Your task to perform on an android device: Go to CNN.com Image 0: 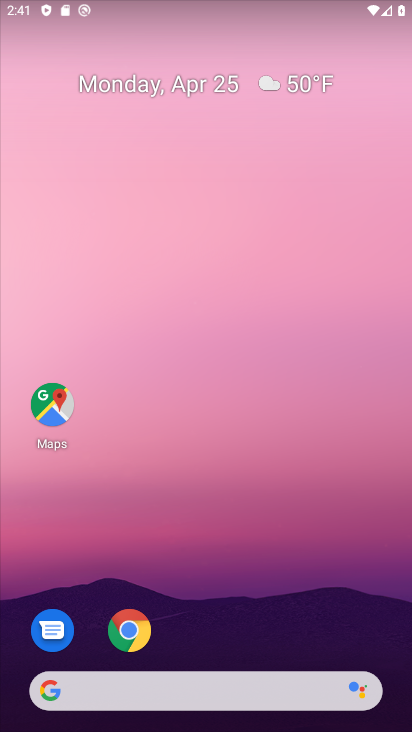
Step 0: click (140, 639)
Your task to perform on an android device: Go to CNN.com Image 1: 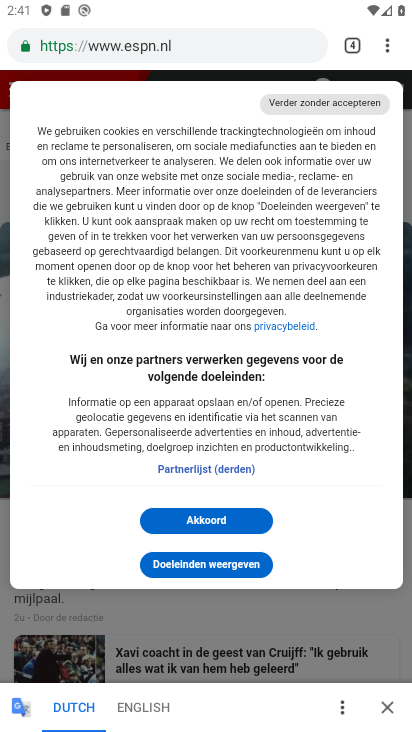
Step 1: click (353, 44)
Your task to perform on an android device: Go to CNN.com Image 2: 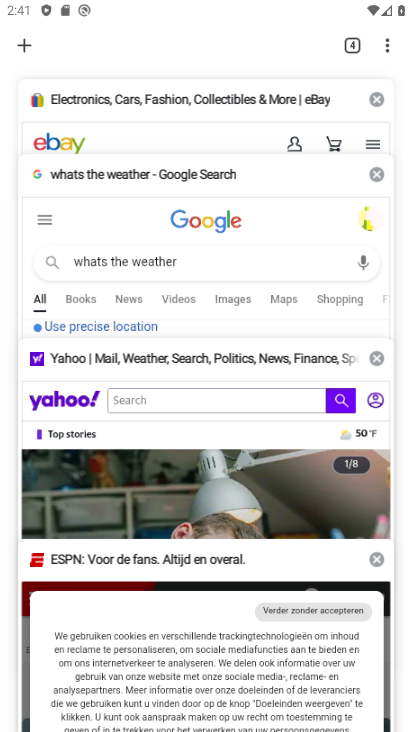
Step 2: click (21, 45)
Your task to perform on an android device: Go to CNN.com Image 3: 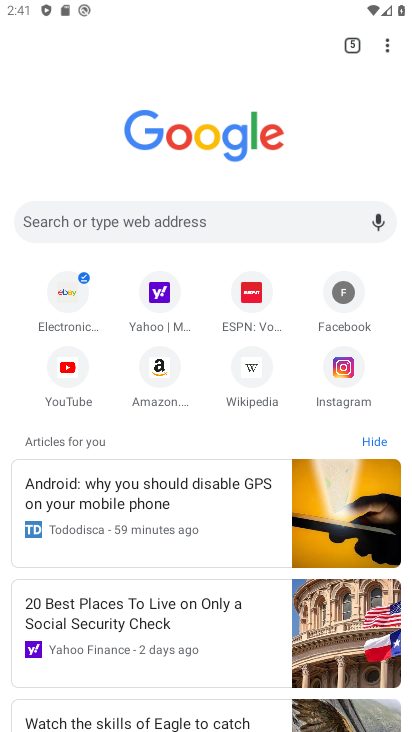
Step 3: click (191, 218)
Your task to perform on an android device: Go to CNN.com Image 4: 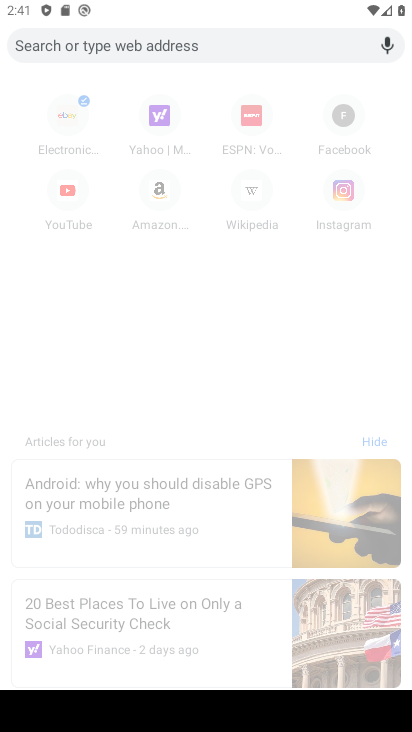
Step 4: type "cnn.com"
Your task to perform on an android device: Go to CNN.com Image 5: 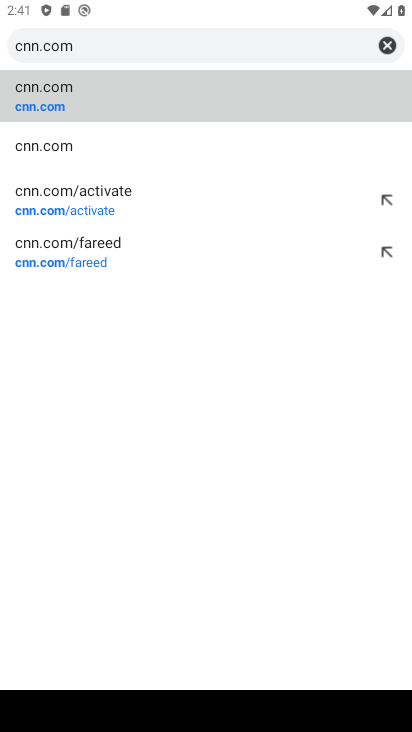
Step 5: click (36, 89)
Your task to perform on an android device: Go to CNN.com Image 6: 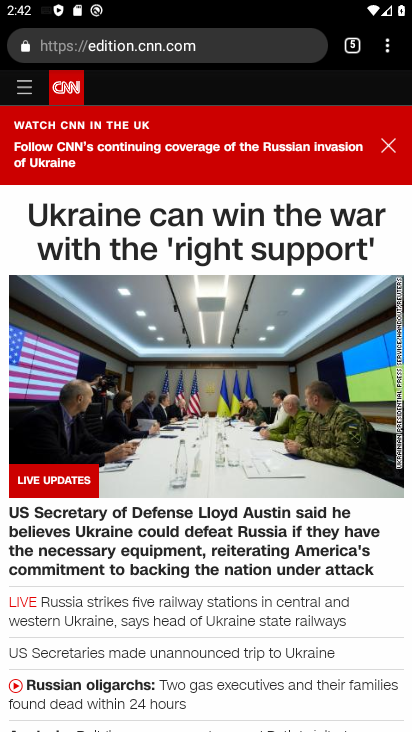
Step 6: task complete